Your task to perform on an android device: Open network settings Image 0: 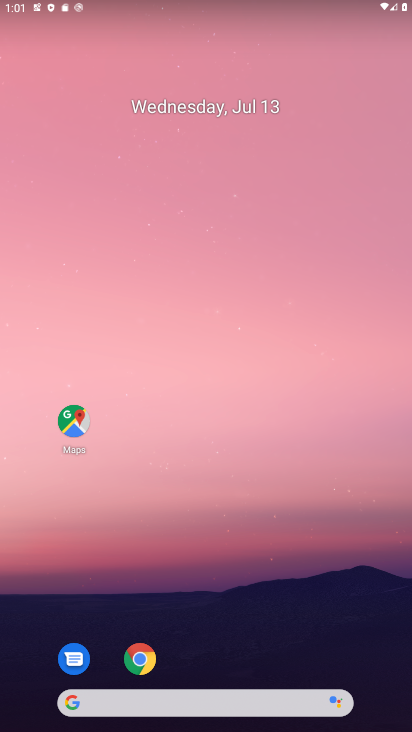
Step 0: drag from (216, 653) to (200, 173)
Your task to perform on an android device: Open network settings Image 1: 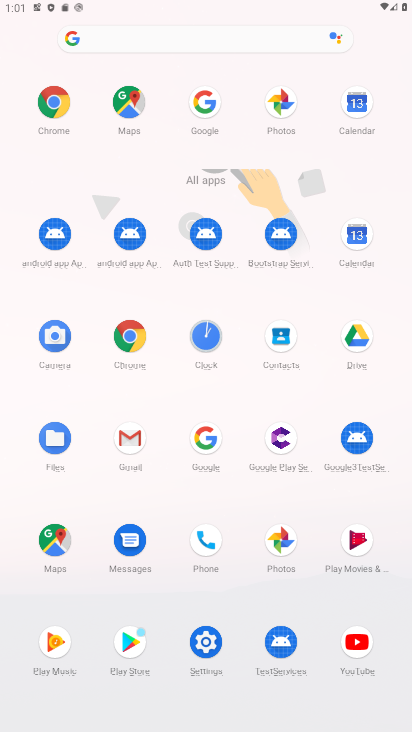
Step 1: click (207, 645)
Your task to perform on an android device: Open network settings Image 2: 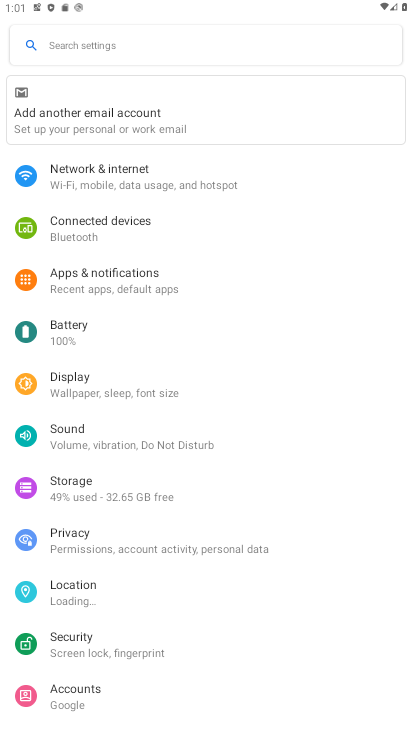
Step 2: click (134, 173)
Your task to perform on an android device: Open network settings Image 3: 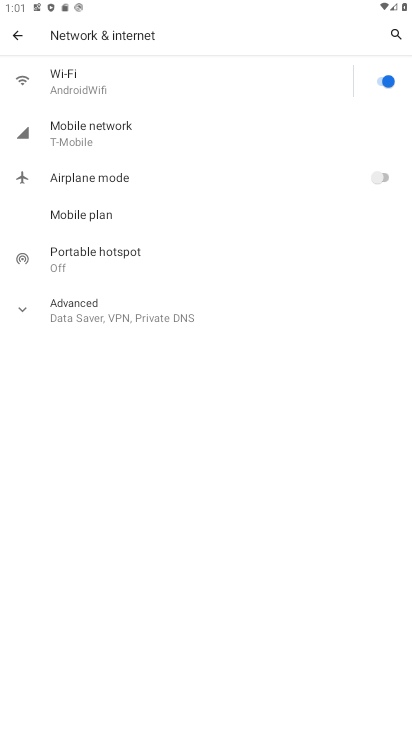
Step 3: click (107, 129)
Your task to perform on an android device: Open network settings Image 4: 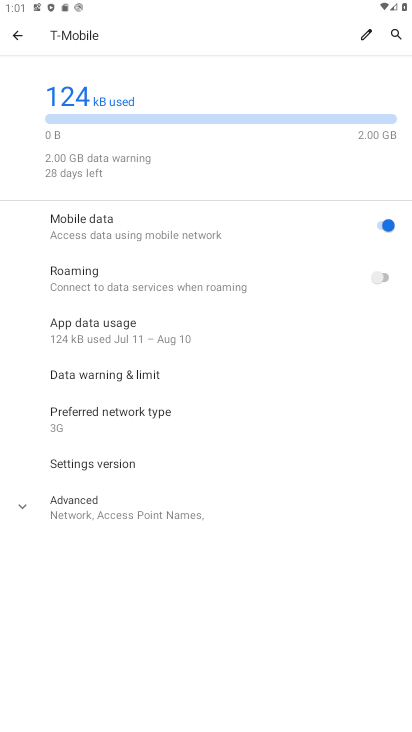
Step 4: task complete